Your task to perform on an android device: Open the Play Movies app and select the watchlist tab. Image 0: 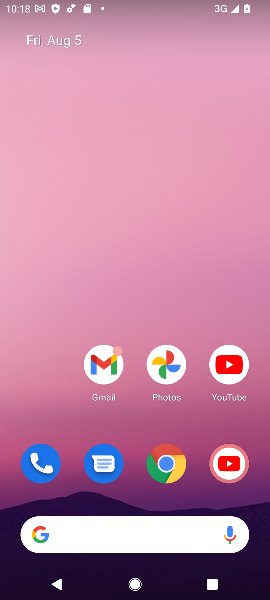
Step 0: drag from (141, 443) to (143, 118)
Your task to perform on an android device: Open the Play Movies app and select the watchlist tab. Image 1: 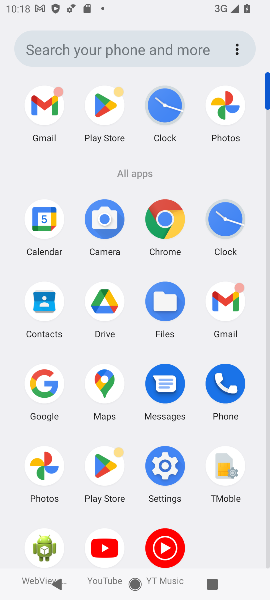
Step 1: click (234, 387)
Your task to perform on an android device: Open the Play Movies app and select the watchlist tab. Image 2: 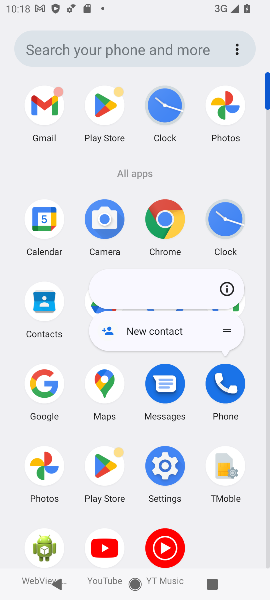
Step 2: click (197, 532)
Your task to perform on an android device: Open the Play Movies app and select the watchlist tab. Image 3: 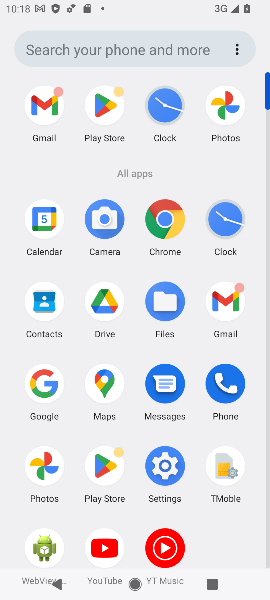
Step 3: click (156, 536)
Your task to perform on an android device: Open the Play Movies app and select the watchlist tab. Image 4: 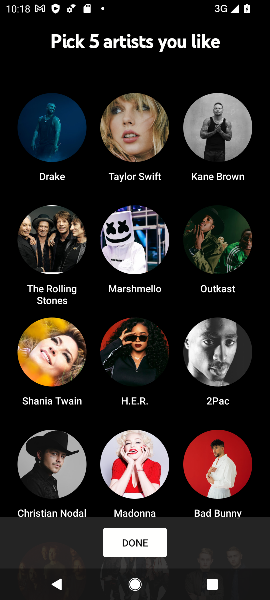
Step 4: click (146, 542)
Your task to perform on an android device: Open the Play Movies app and select the watchlist tab. Image 5: 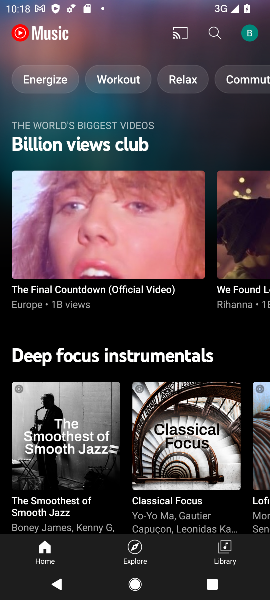
Step 5: task complete